Your task to perform on an android device: turn on translation in the chrome app Image 0: 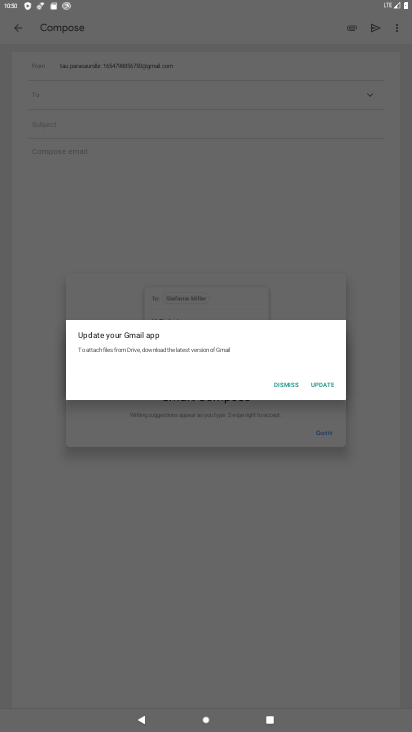
Step 0: press home button
Your task to perform on an android device: turn on translation in the chrome app Image 1: 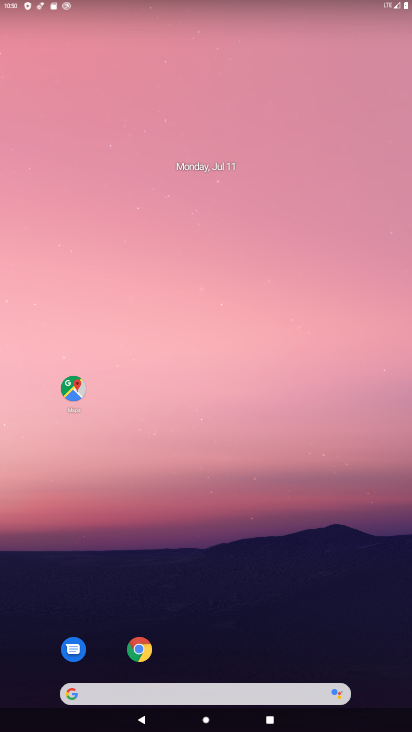
Step 1: drag from (208, 614) to (205, 87)
Your task to perform on an android device: turn on translation in the chrome app Image 2: 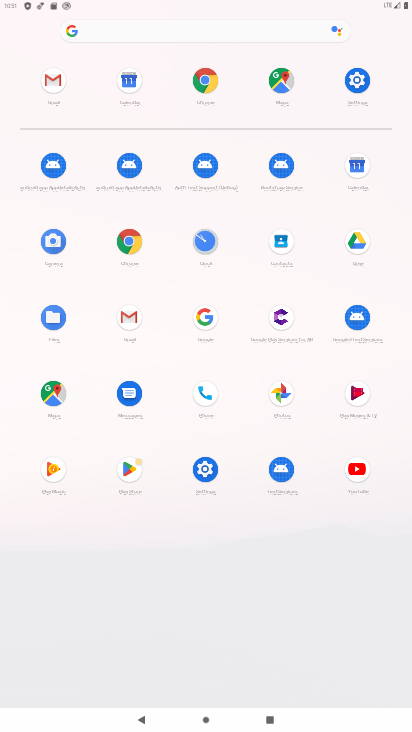
Step 2: click (129, 238)
Your task to perform on an android device: turn on translation in the chrome app Image 3: 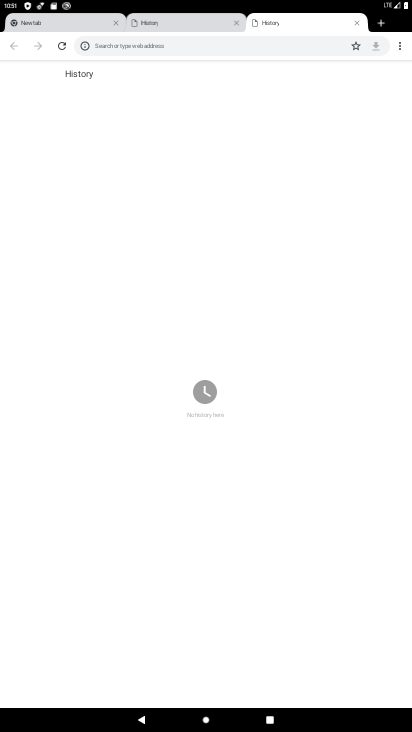
Step 3: drag from (401, 42) to (321, 213)
Your task to perform on an android device: turn on translation in the chrome app Image 4: 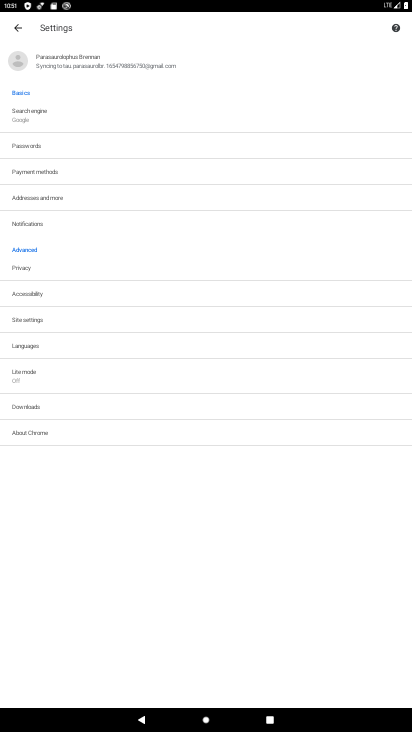
Step 4: click (47, 345)
Your task to perform on an android device: turn on translation in the chrome app Image 5: 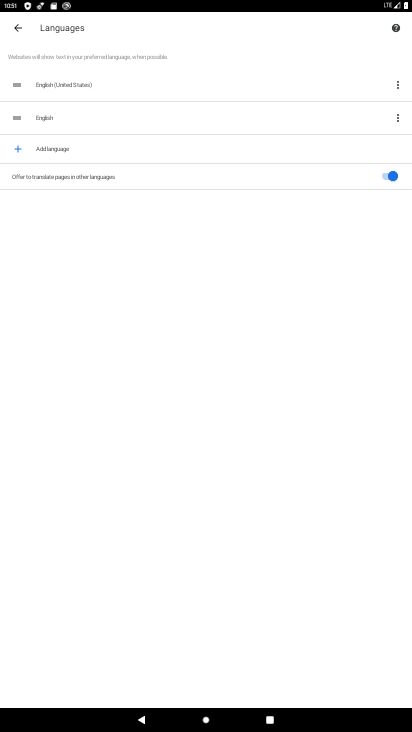
Step 5: task complete